Your task to perform on an android device: Go to Google Image 0: 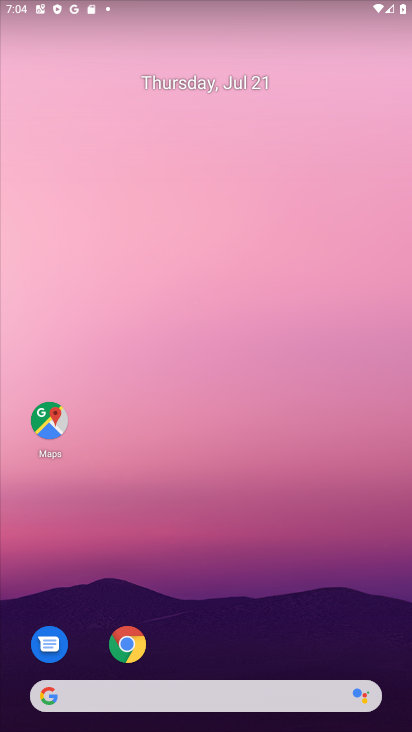
Step 0: click (180, 704)
Your task to perform on an android device: Go to Google Image 1: 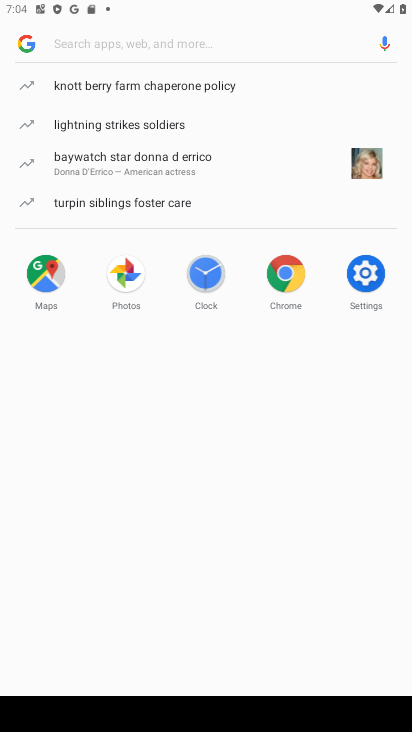
Step 1: task complete